Your task to perform on an android device: toggle location history Image 0: 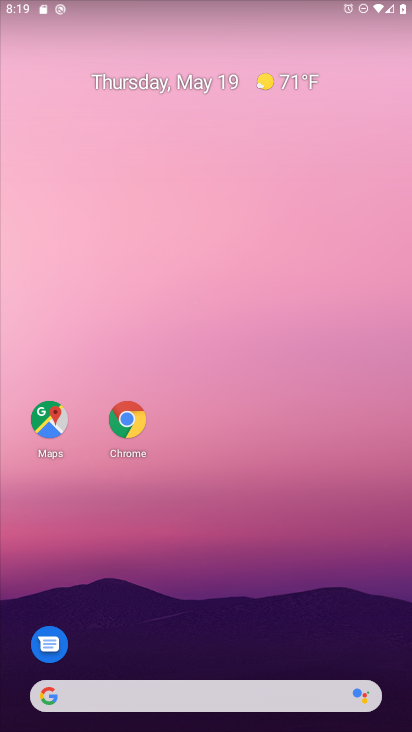
Step 0: drag from (274, 669) to (274, 341)
Your task to perform on an android device: toggle location history Image 1: 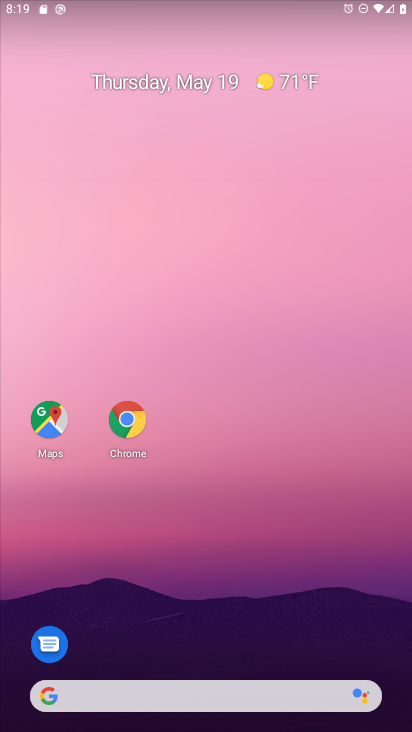
Step 1: drag from (256, 669) to (256, 235)
Your task to perform on an android device: toggle location history Image 2: 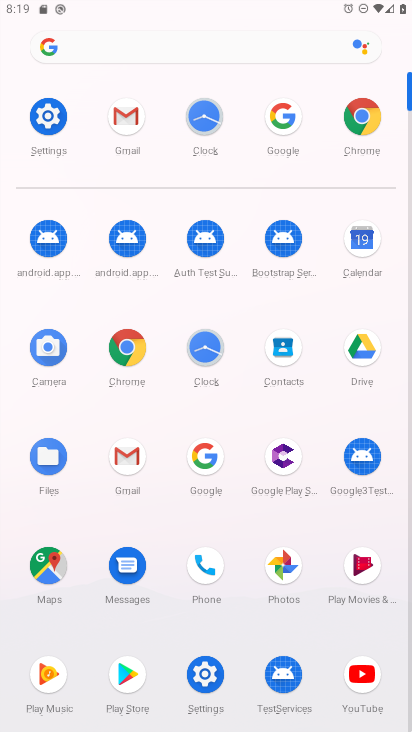
Step 2: click (57, 117)
Your task to perform on an android device: toggle location history Image 3: 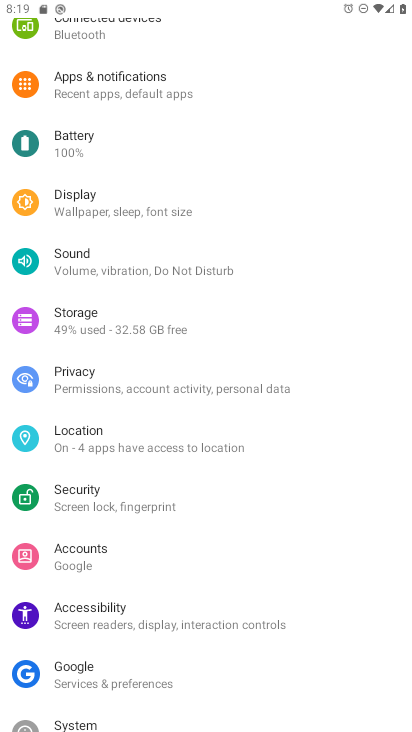
Step 3: drag from (122, 656) to (187, 279)
Your task to perform on an android device: toggle location history Image 4: 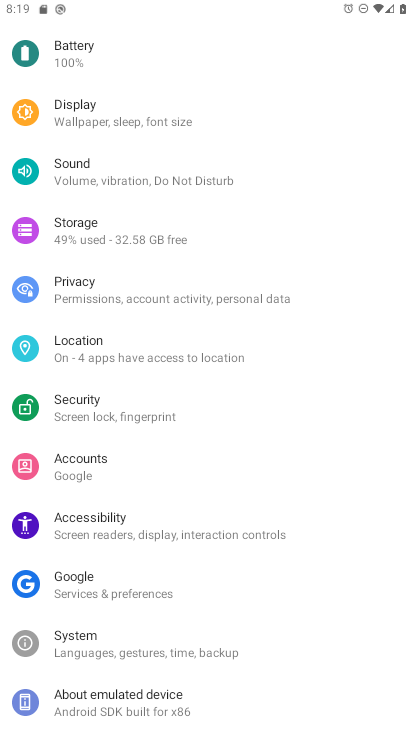
Step 4: click (99, 355)
Your task to perform on an android device: toggle location history Image 5: 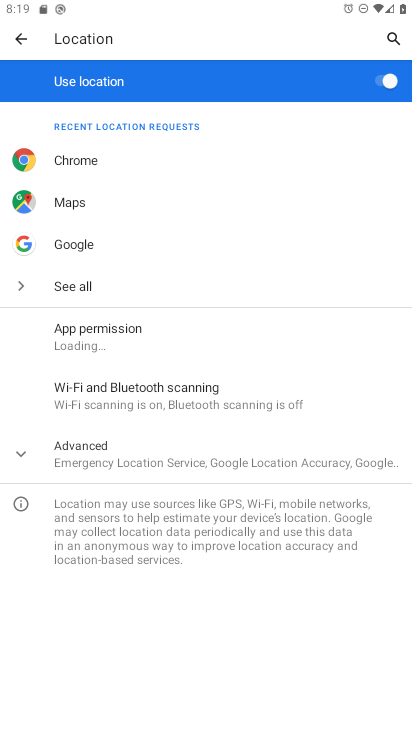
Step 5: click (109, 455)
Your task to perform on an android device: toggle location history Image 6: 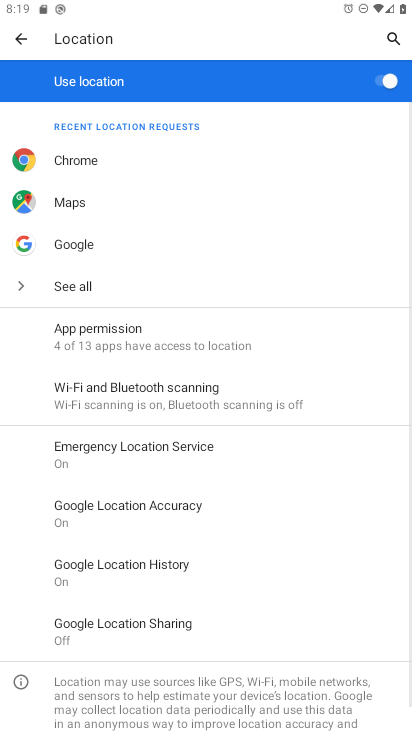
Step 6: click (158, 564)
Your task to perform on an android device: toggle location history Image 7: 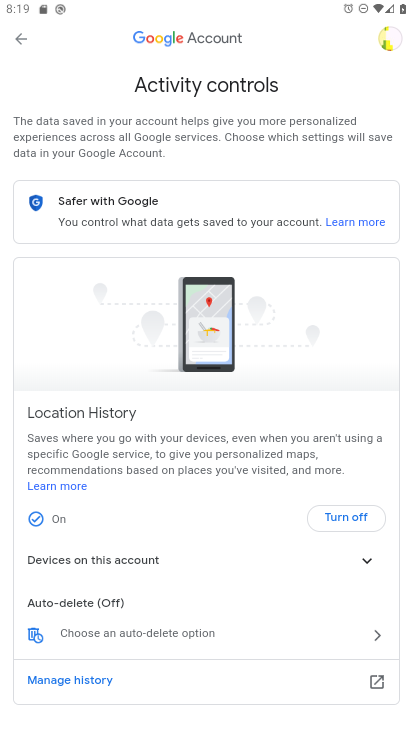
Step 7: click (353, 511)
Your task to perform on an android device: toggle location history Image 8: 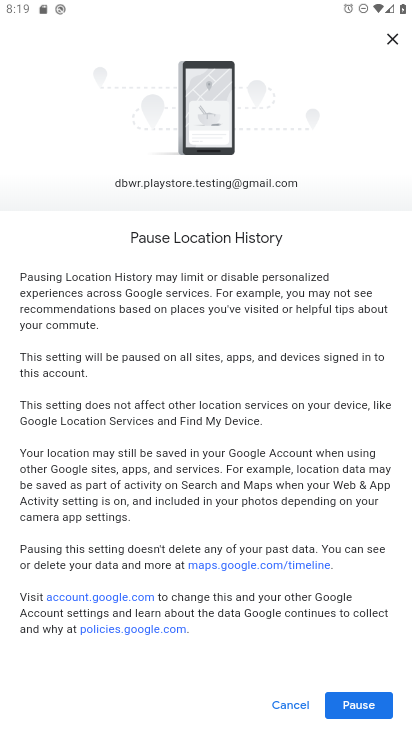
Step 8: click (357, 709)
Your task to perform on an android device: toggle location history Image 9: 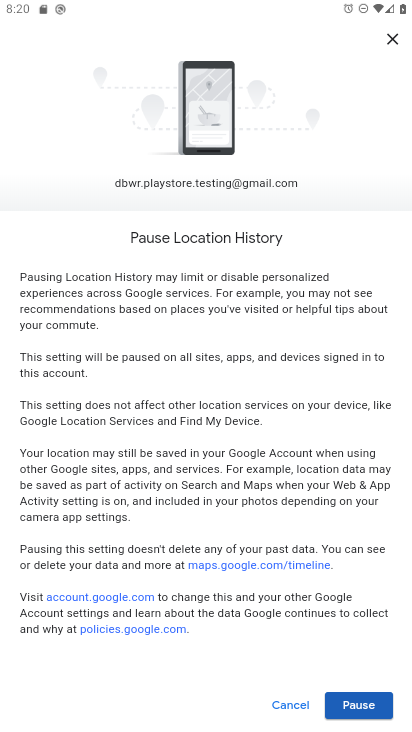
Step 9: click (357, 709)
Your task to perform on an android device: toggle location history Image 10: 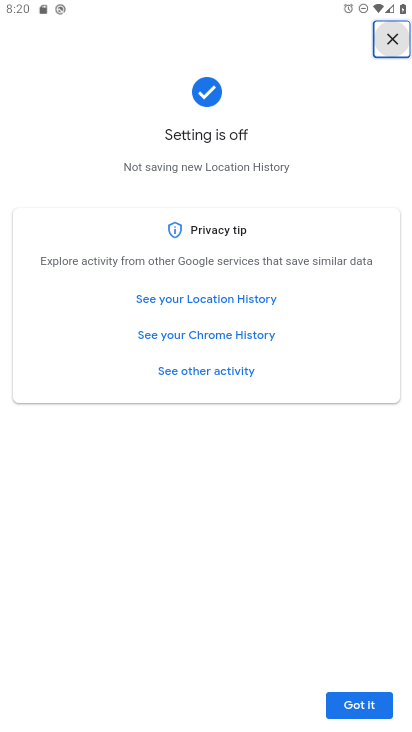
Step 10: click (354, 708)
Your task to perform on an android device: toggle location history Image 11: 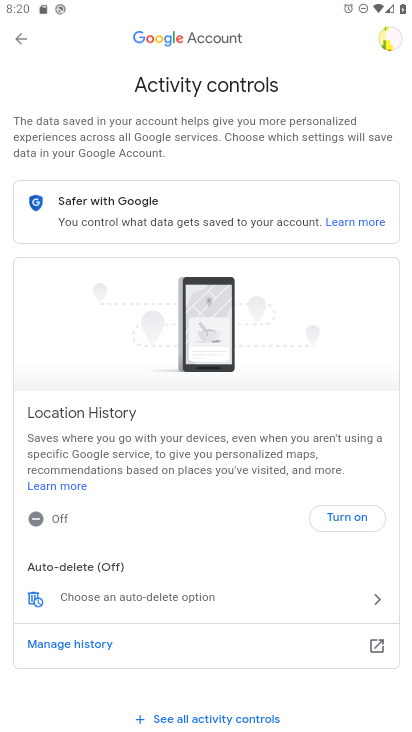
Step 11: task complete